Your task to perform on an android device: Open ESPN.com Image 0: 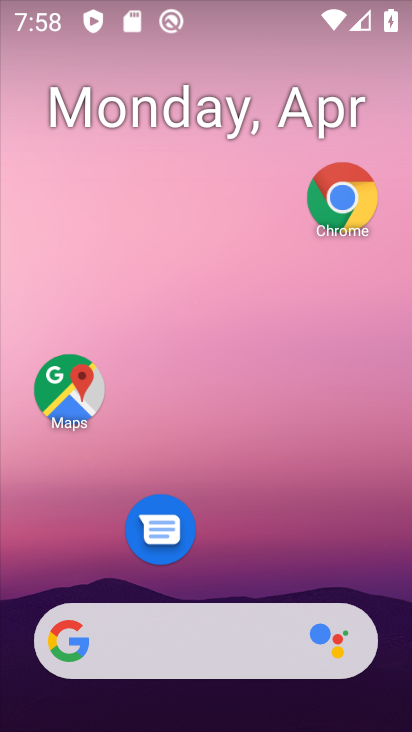
Step 0: click (360, 182)
Your task to perform on an android device: Open ESPN.com Image 1: 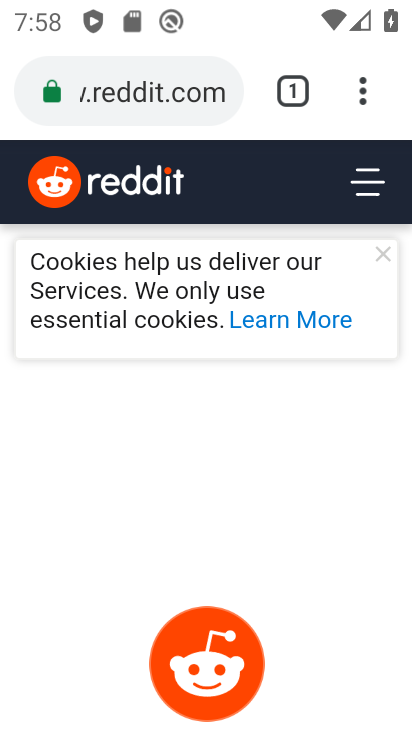
Step 1: click (361, 98)
Your task to perform on an android device: Open ESPN.com Image 2: 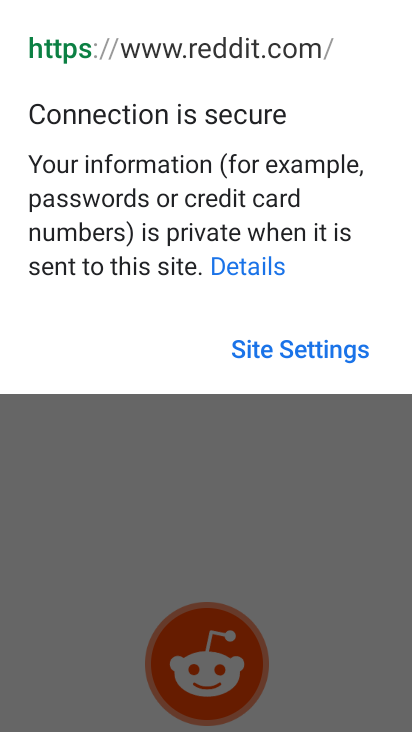
Step 2: click (148, 495)
Your task to perform on an android device: Open ESPN.com Image 3: 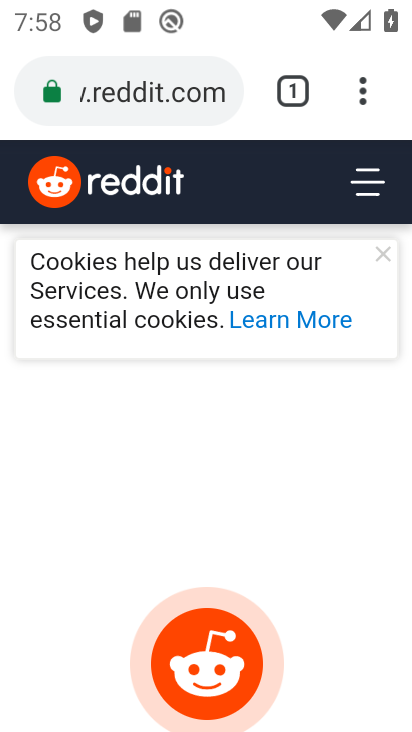
Step 3: click (292, 97)
Your task to perform on an android device: Open ESPN.com Image 4: 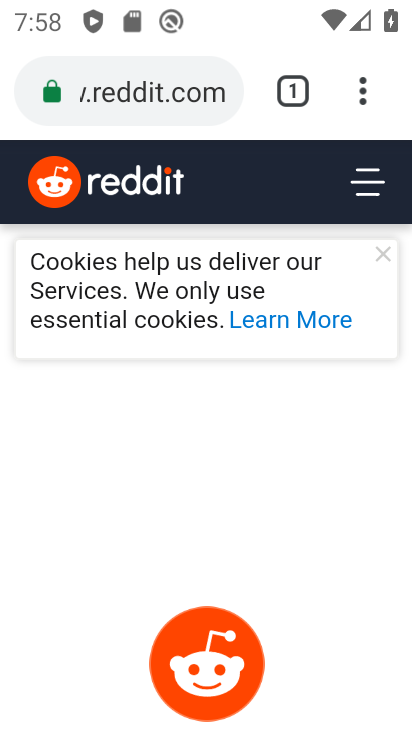
Step 4: click (290, 95)
Your task to perform on an android device: Open ESPN.com Image 5: 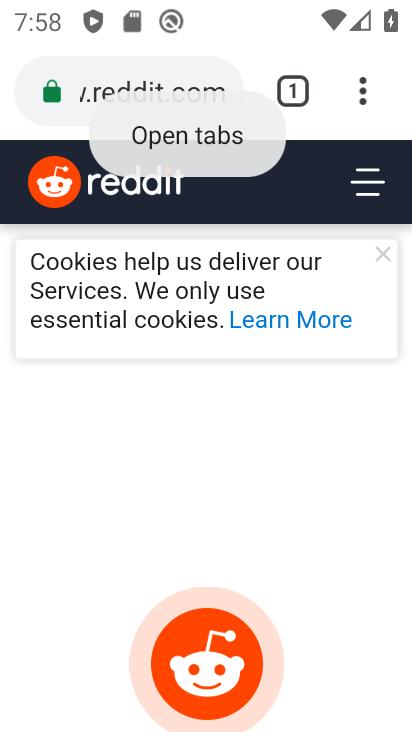
Step 5: click (173, 139)
Your task to perform on an android device: Open ESPN.com Image 6: 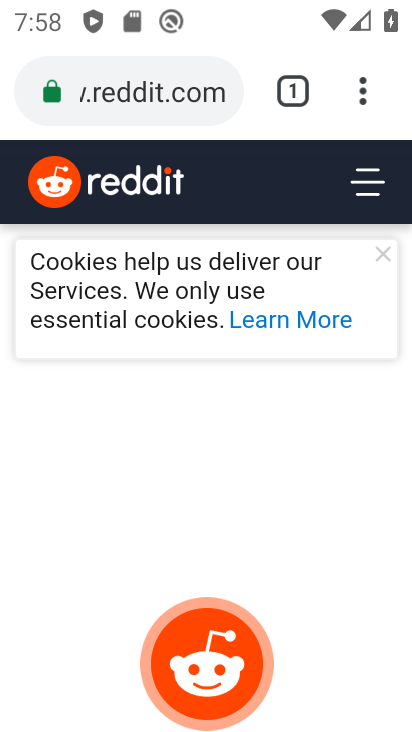
Step 6: click (289, 90)
Your task to perform on an android device: Open ESPN.com Image 7: 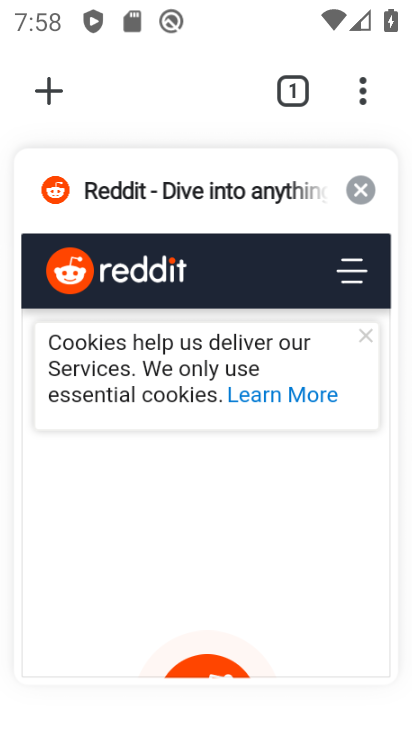
Step 7: click (47, 82)
Your task to perform on an android device: Open ESPN.com Image 8: 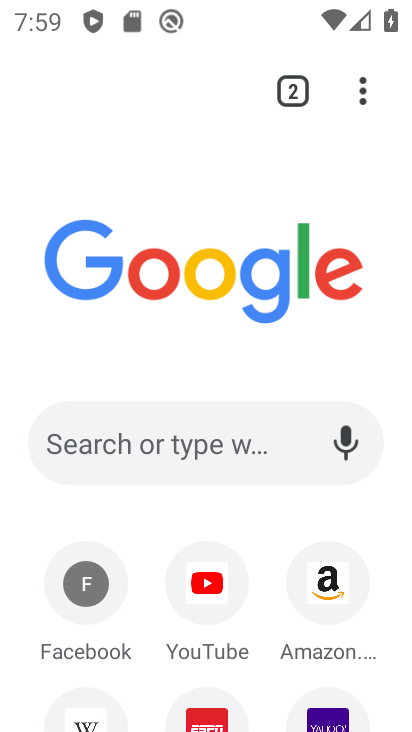
Step 8: click (216, 712)
Your task to perform on an android device: Open ESPN.com Image 9: 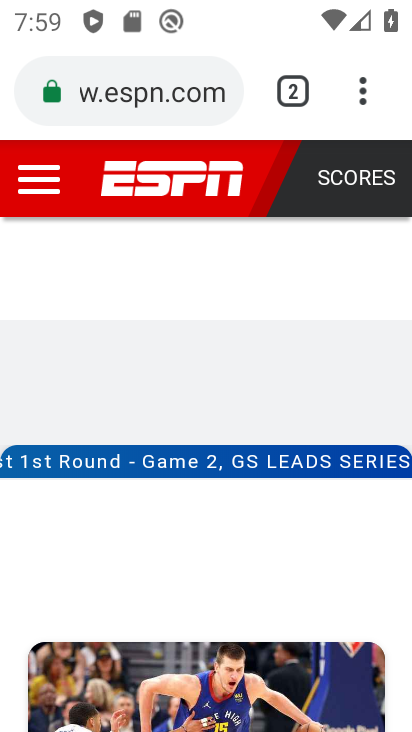
Step 9: task complete